Your task to perform on an android device: add a contact Image 0: 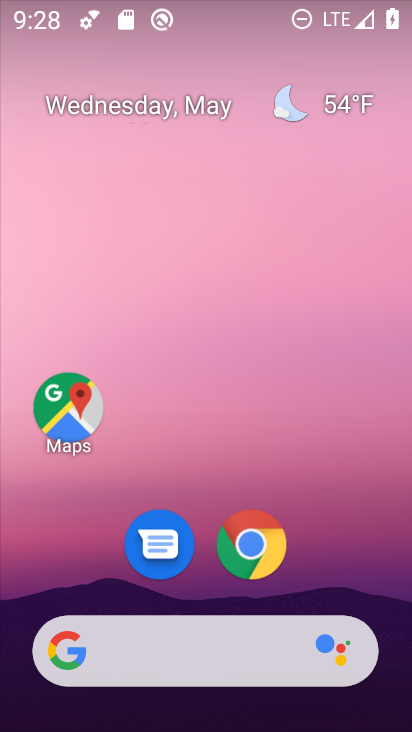
Step 0: drag from (187, 539) to (370, 22)
Your task to perform on an android device: add a contact Image 1: 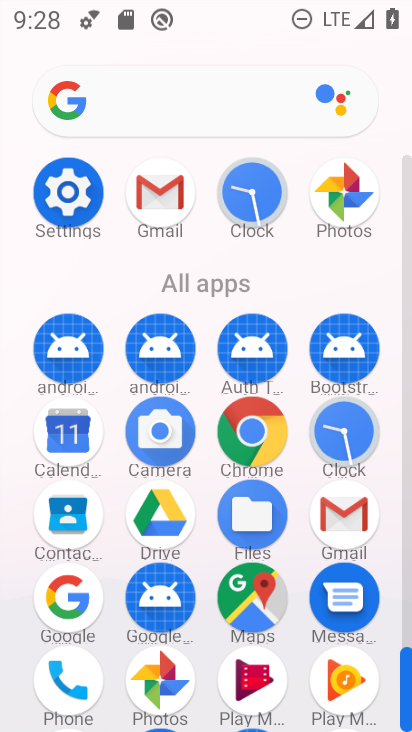
Step 1: click (54, 511)
Your task to perform on an android device: add a contact Image 2: 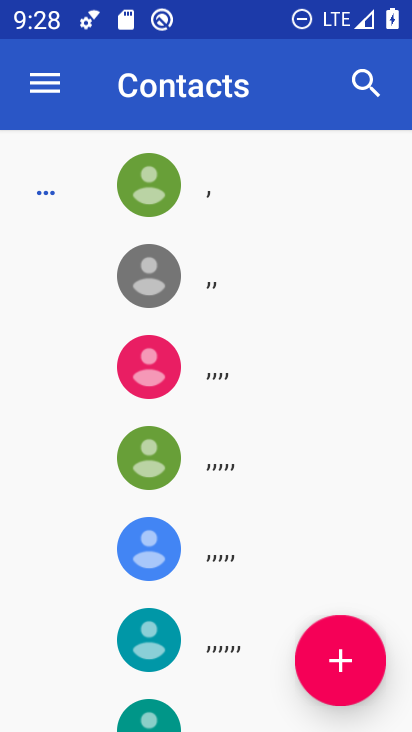
Step 2: click (361, 653)
Your task to perform on an android device: add a contact Image 3: 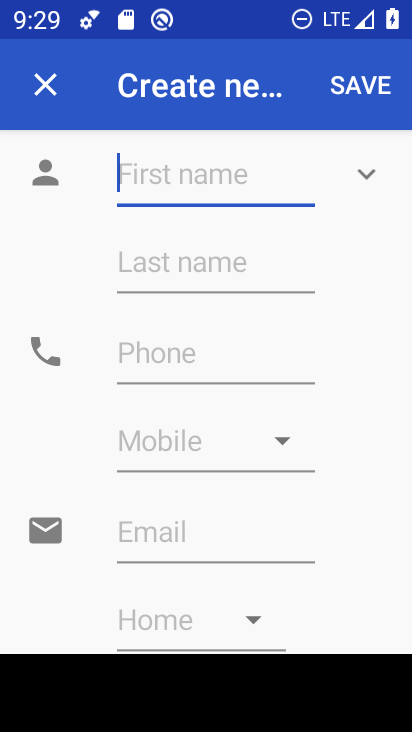
Step 3: type "kir"
Your task to perform on an android device: add a contact Image 4: 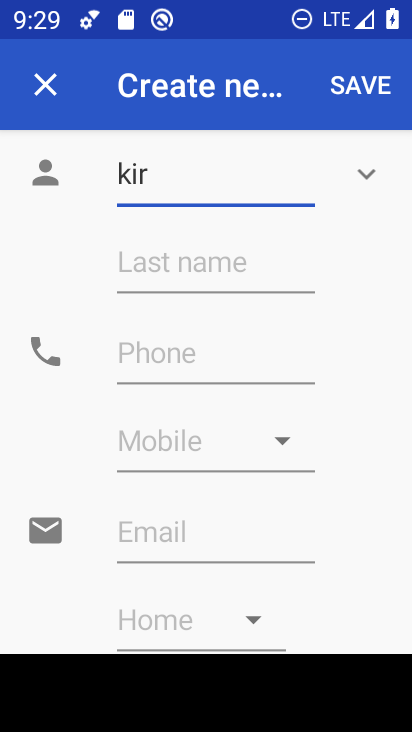
Step 4: click (178, 349)
Your task to perform on an android device: add a contact Image 5: 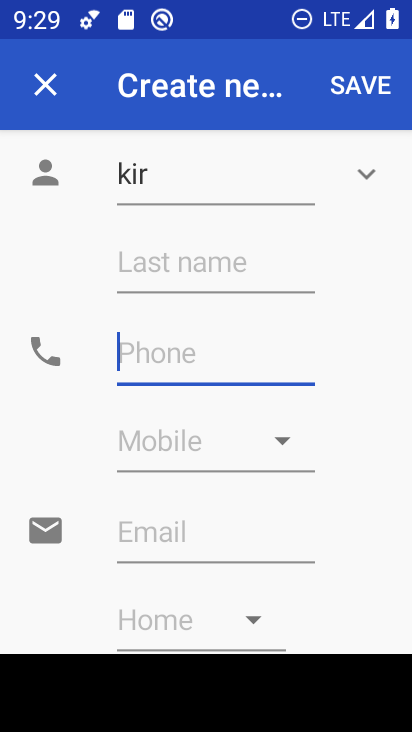
Step 5: type "987656789"
Your task to perform on an android device: add a contact Image 6: 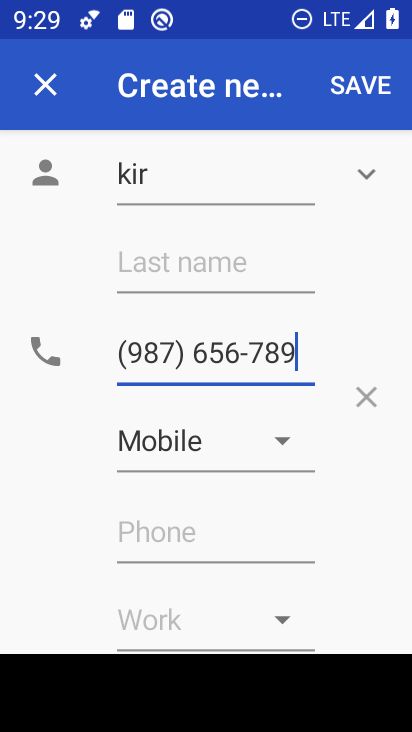
Step 6: click (361, 85)
Your task to perform on an android device: add a contact Image 7: 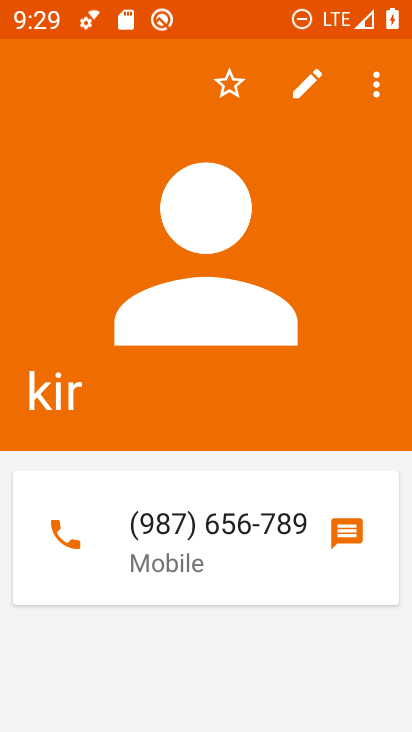
Step 7: task complete